Your task to perform on an android device: open wifi settings Image 0: 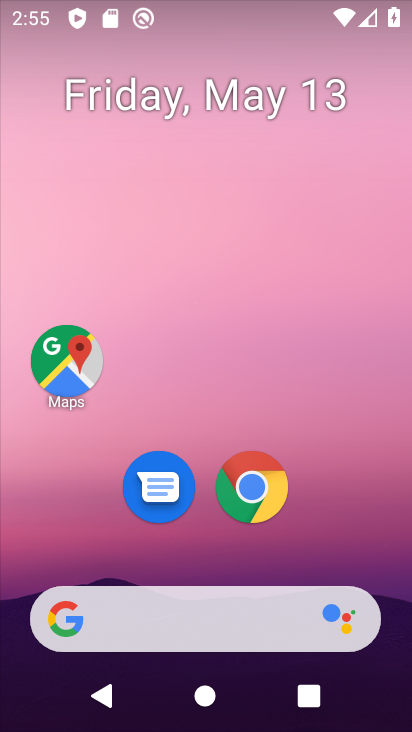
Step 0: drag from (360, 518) to (399, 98)
Your task to perform on an android device: open wifi settings Image 1: 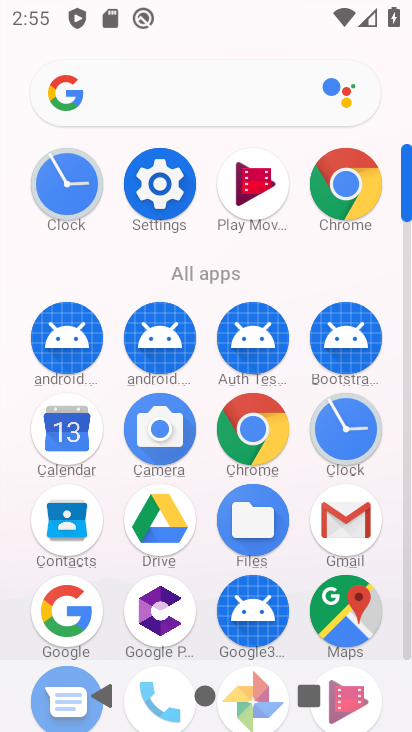
Step 1: click (152, 194)
Your task to perform on an android device: open wifi settings Image 2: 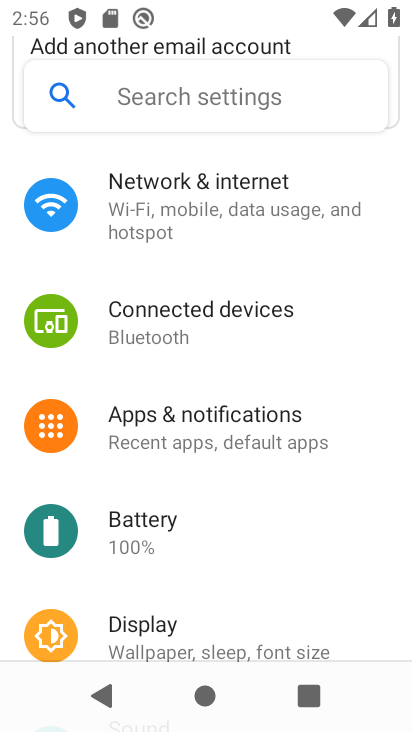
Step 2: click (179, 195)
Your task to perform on an android device: open wifi settings Image 3: 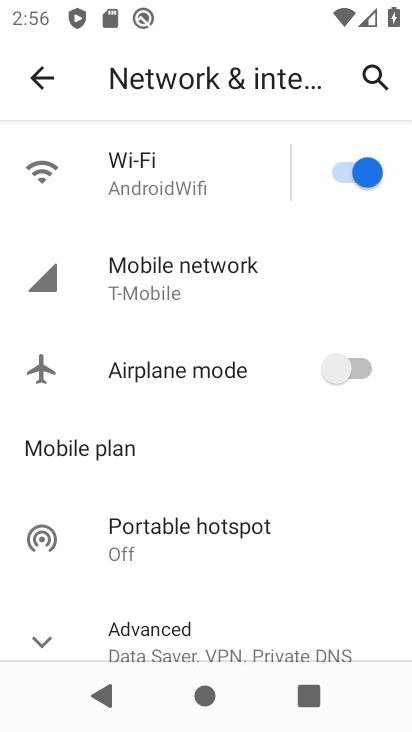
Step 3: click (179, 198)
Your task to perform on an android device: open wifi settings Image 4: 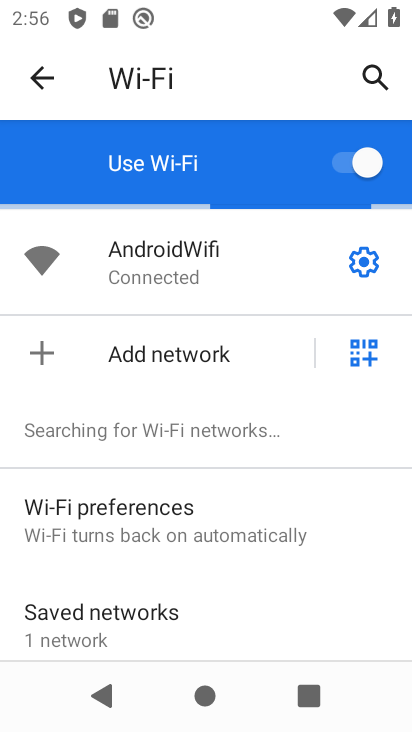
Step 4: task complete